Your task to perform on an android device: open wifi settings Image 0: 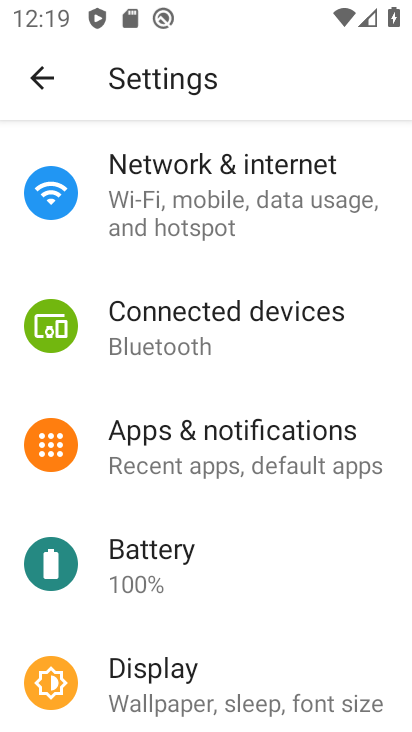
Step 0: press back button
Your task to perform on an android device: open wifi settings Image 1: 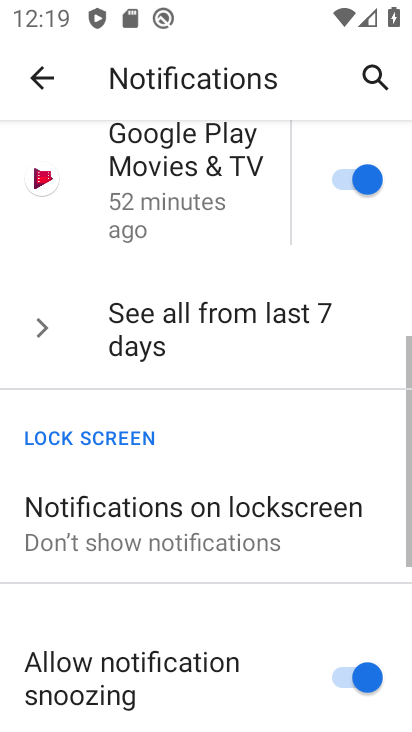
Step 1: drag from (170, 9) to (160, 611)
Your task to perform on an android device: open wifi settings Image 2: 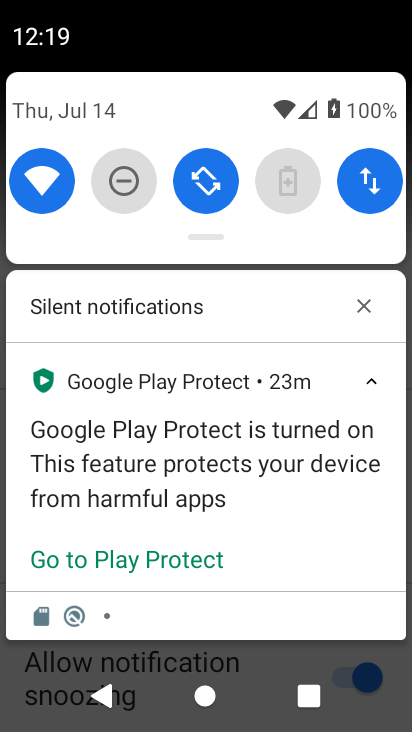
Step 2: click (38, 183)
Your task to perform on an android device: open wifi settings Image 3: 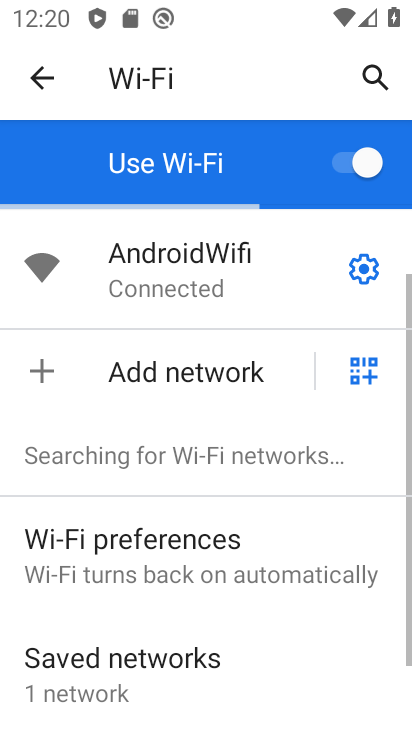
Step 3: task complete